Your task to perform on an android device: Open the Play Movies app and select the watchlist tab. Image 0: 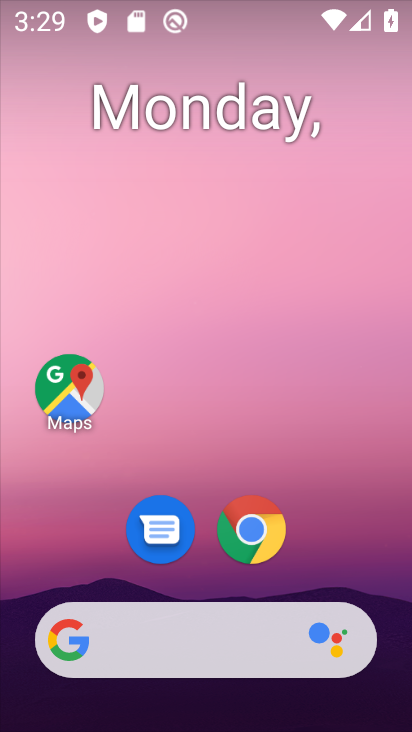
Step 0: drag from (197, 592) to (241, 66)
Your task to perform on an android device: Open the Play Movies app and select the watchlist tab. Image 1: 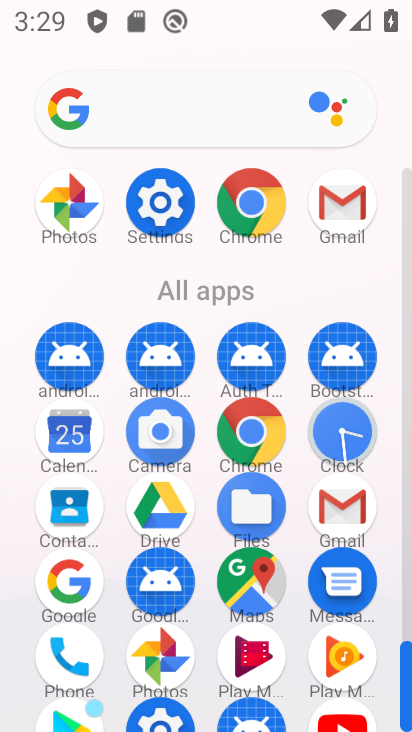
Step 1: click (253, 652)
Your task to perform on an android device: Open the Play Movies app and select the watchlist tab. Image 2: 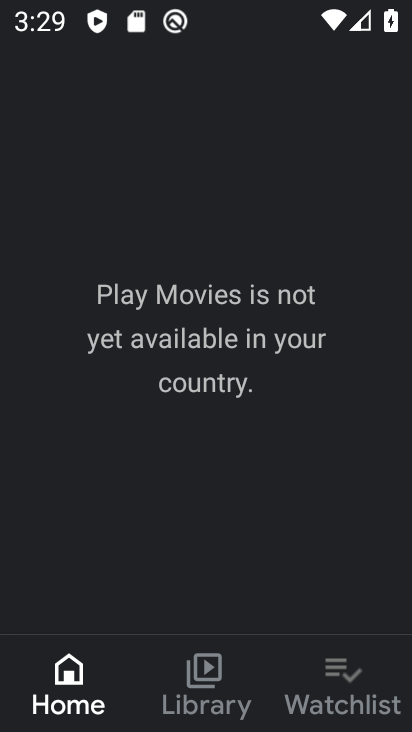
Step 2: click (312, 680)
Your task to perform on an android device: Open the Play Movies app and select the watchlist tab. Image 3: 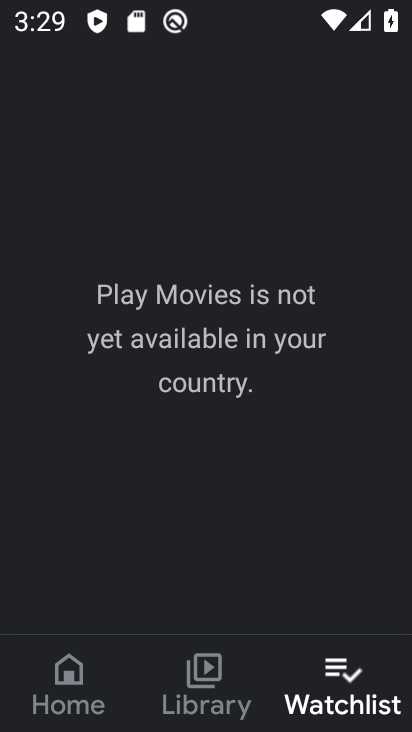
Step 3: task complete